Your task to perform on an android device: check android version Image 0: 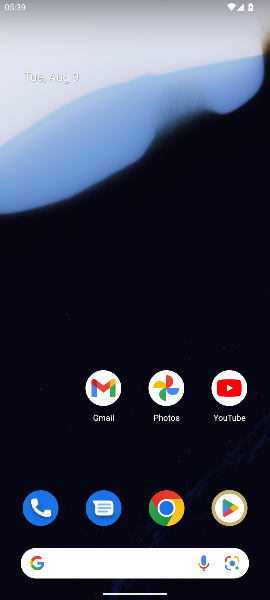
Step 0: drag from (112, 454) to (96, 70)
Your task to perform on an android device: check android version Image 1: 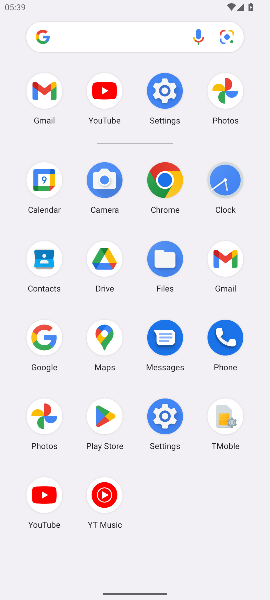
Step 1: click (165, 80)
Your task to perform on an android device: check android version Image 2: 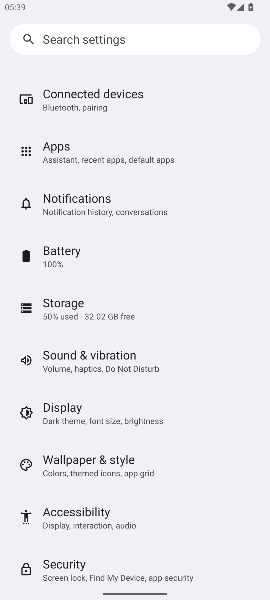
Step 2: drag from (87, 332) to (84, 225)
Your task to perform on an android device: check android version Image 3: 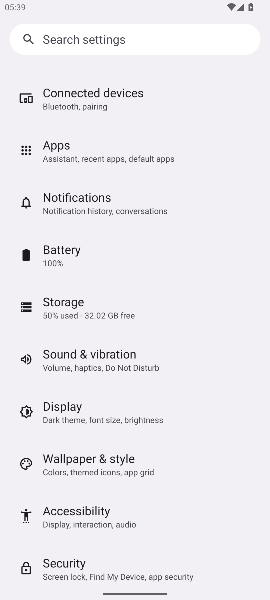
Step 3: drag from (103, 566) to (96, 215)
Your task to perform on an android device: check android version Image 4: 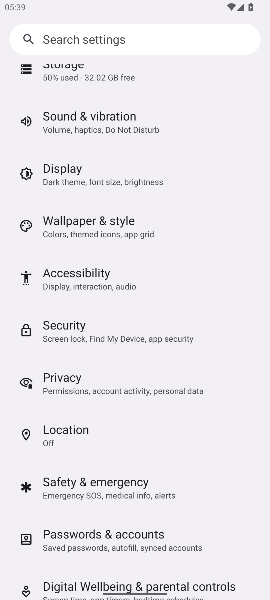
Step 4: drag from (119, 521) to (120, 147)
Your task to perform on an android device: check android version Image 5: 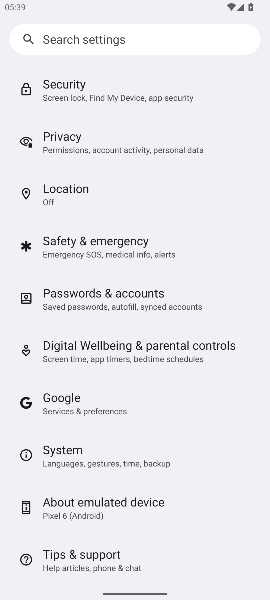
Step 5: drag from (113, 553) to (114, 299)
Your task to perform on an android device: check android version Image 6: 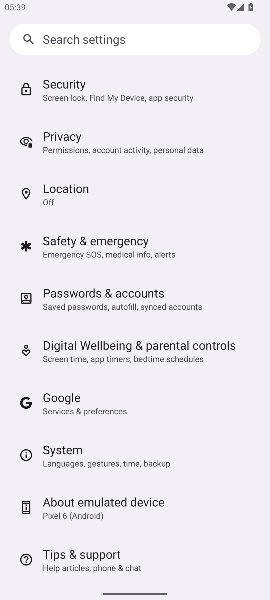
Step 6: click (86, 499)
Your task to perform on an android device: check android version Image 7: 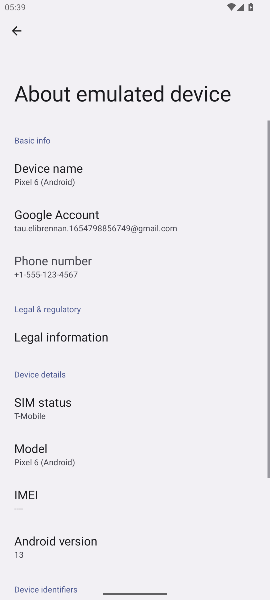
Step 7: drag from (66, 396) to (66, 220)
Your task to perform on an android device: check android version Image 8: 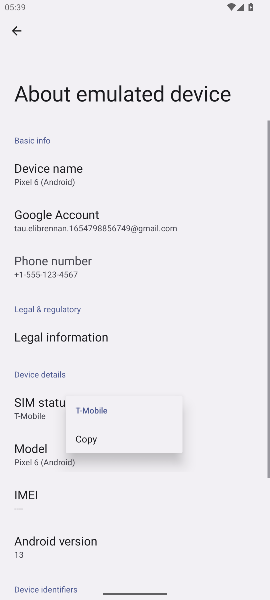
Step 8: click (75, 544)
Your task to perform on an android device: check android version Image 9: 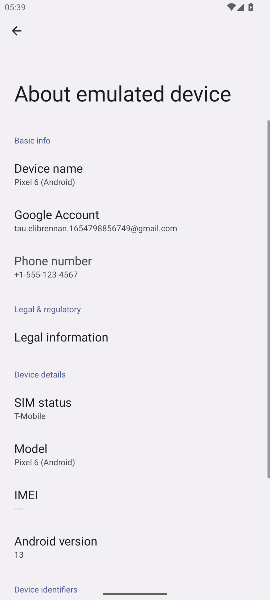
Step 9: click (75, 544)
Your task to perform on an android device: check android version Image 10: 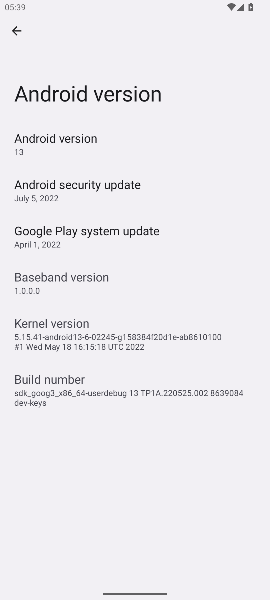
Step 10: click (66, 142)
Your task to perform on an android device: check android version Image 11: 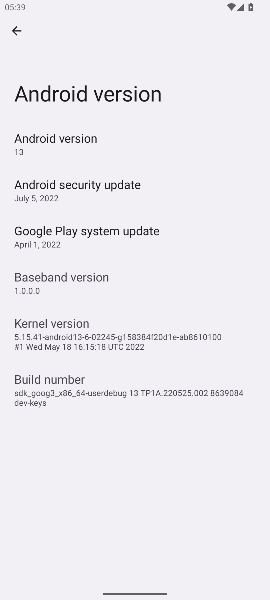
Step 11: task complete